Your task to perform on an android device: When is my next appointment? Image 0: 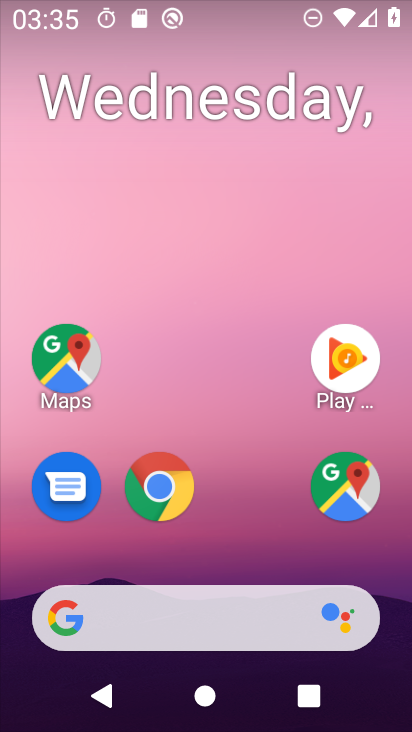
Step 0: press home button
Your task to perform on an android device: When is my next appointment? Image 1: 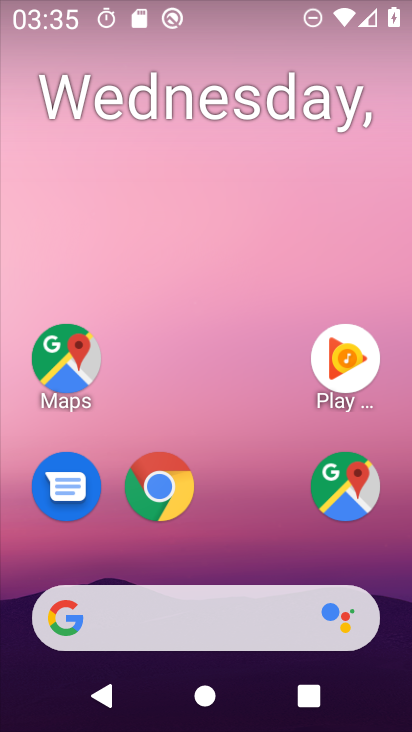
Step 1: drag from (244, 526) to (250, 79)
Your task to perform on an android device: When is my next appointment? Image 2: 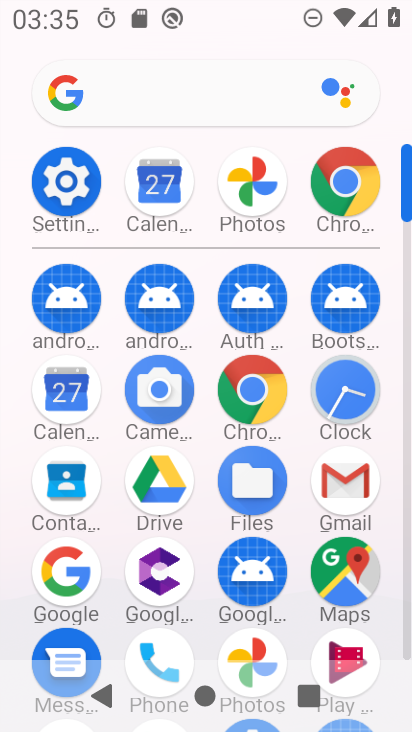
Step 2: click (73, 411)
Your task to perform on an android device: When is my next appointment? Image 3: 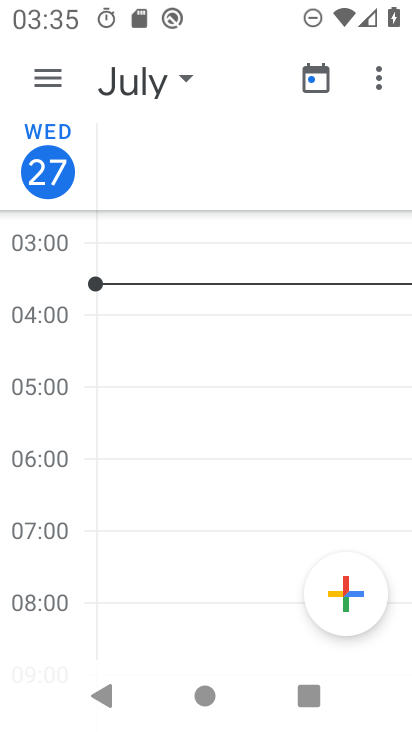
Step 3: click (54, 85)
Your task to perform on an android device: When is my next appointment? Image 4: 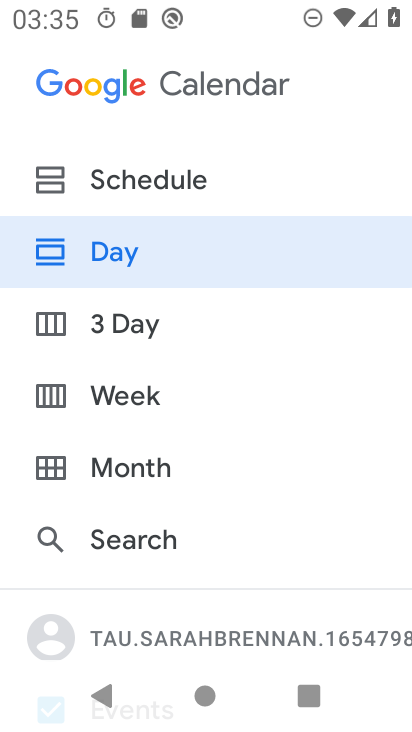
Step 4: click (136, 166)
Your task to perform on an android device: When is my next appointment? Image 5: 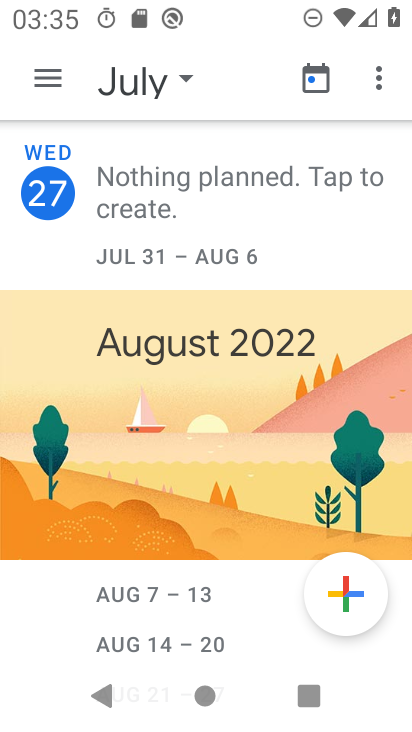
Step 5: task complete